Your task to perform on an android device: turn on the 24-hour format for clock Image 0: 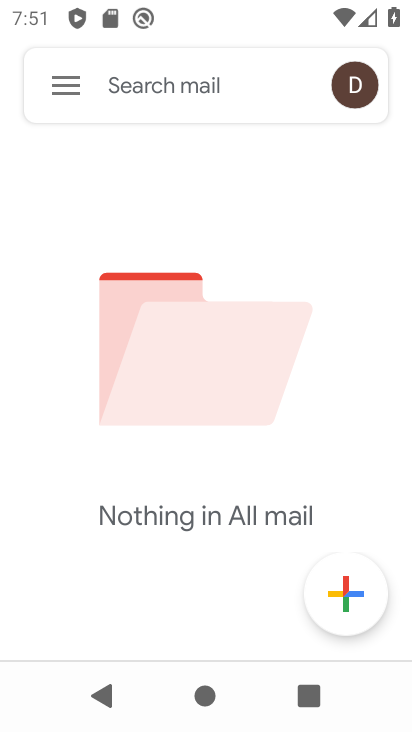
Step 0: press home button
Your task to perform on an android device: turn on the 24-hour format for clock Image 1: 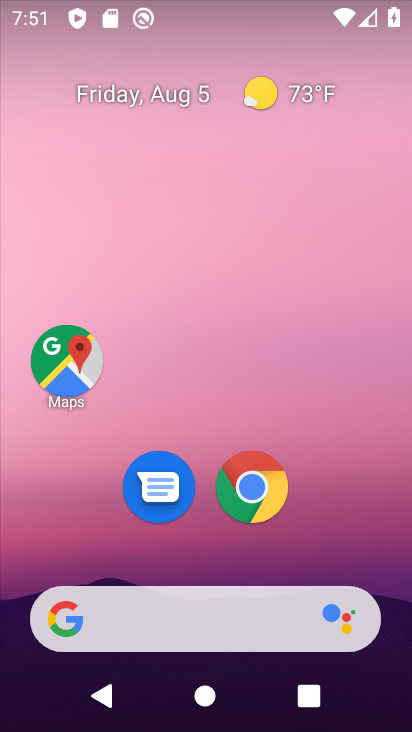
Step 1: drag from (246, 633) to (378, 139)
Your task to perform on an android device: turn on the 24-hour format for clock Image 2: 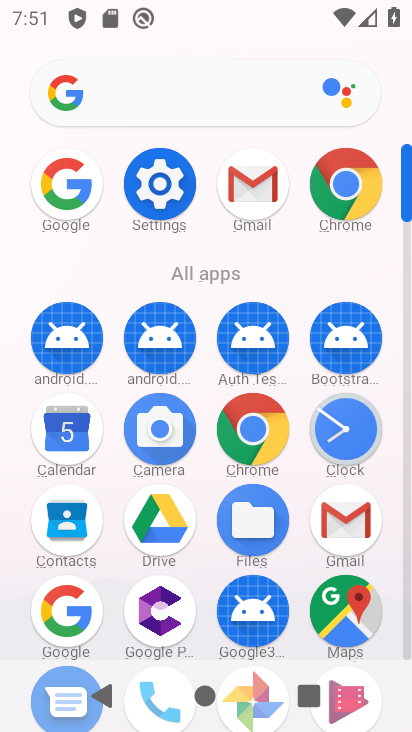
Step 2: click (344, 423)
Your task to perform on an android device: turn on the 24-hour format for clock Image 3: 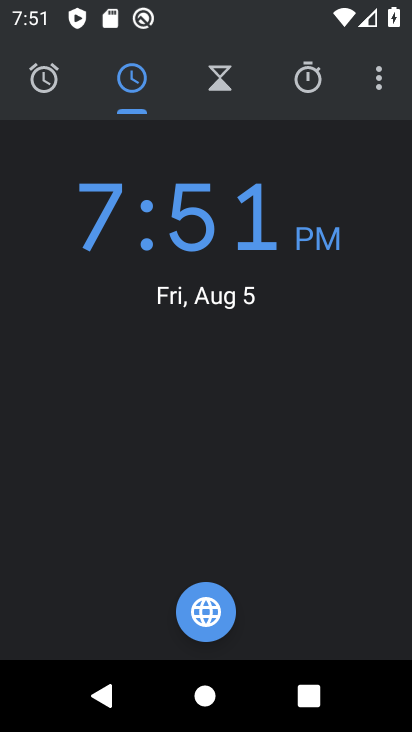
Step 3: click (379, 78)
Your task to perform on an android device: turn on the 24-hour format for clock Image 4: 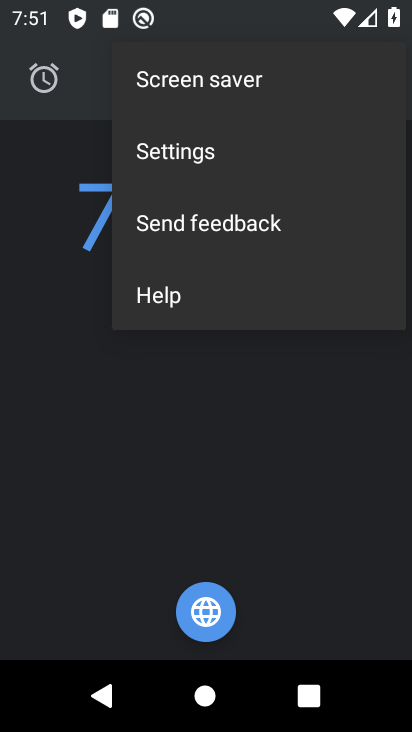
Step 4: click (229, 141)
Your task to perform on an android device: turn on the 24-hour format for clock Image 5: 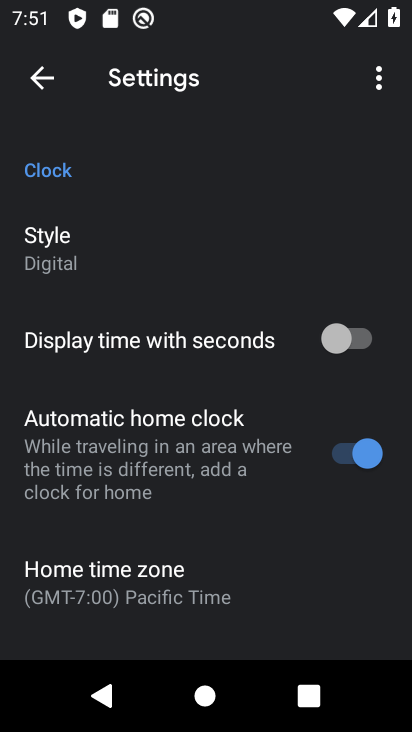
Step 5: drag from (261, 556) to (349, 82)
Your task to perform on an android device: turn on the 24-hour format for clock Image 6: 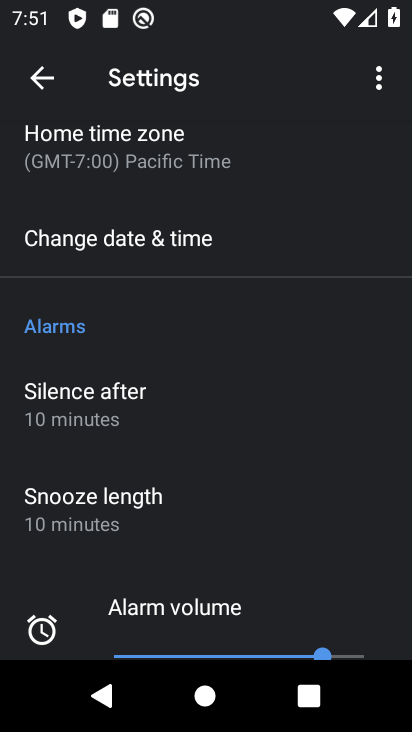
Step 6: click (165, 242)
Your task to perform on an android device: turn on the 24-hour format for clock Image 7: 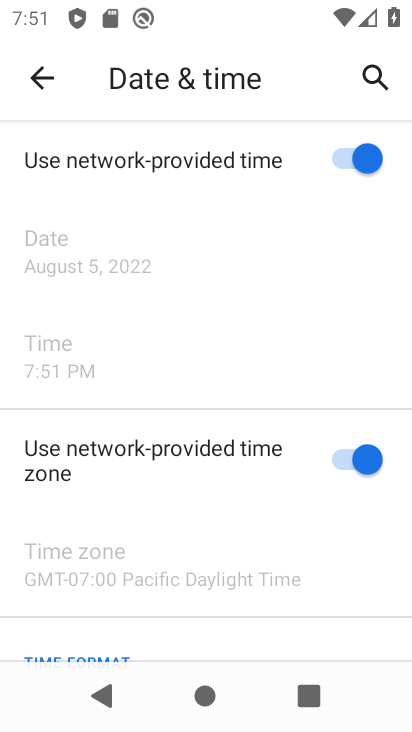
Step 7: drag from (258, 545) to (380, 124)
Your task to perform on an android device: turn on the 24-hour format for clock Image 8: 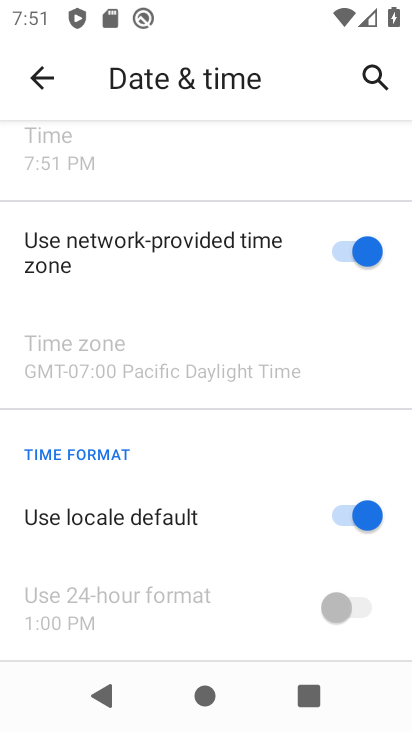
Step 8: click (358, 604)
Your task to perform on an android device: turn on the 24-hour format for clock Image 9: 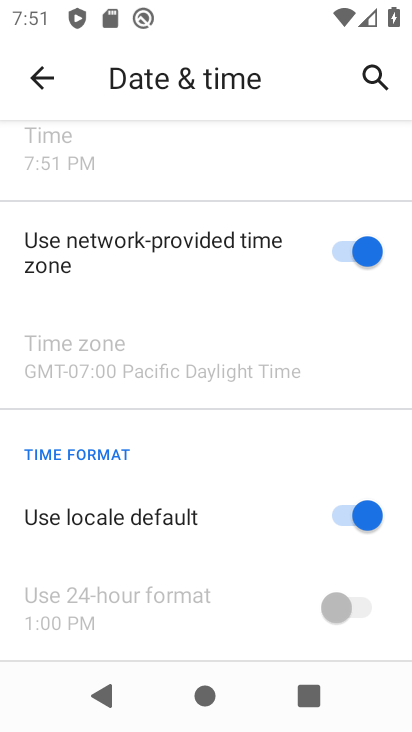
Step 9: click (345, 517)
Your task to perform on an android device: turn on the 24-hour format for clock Image 10: 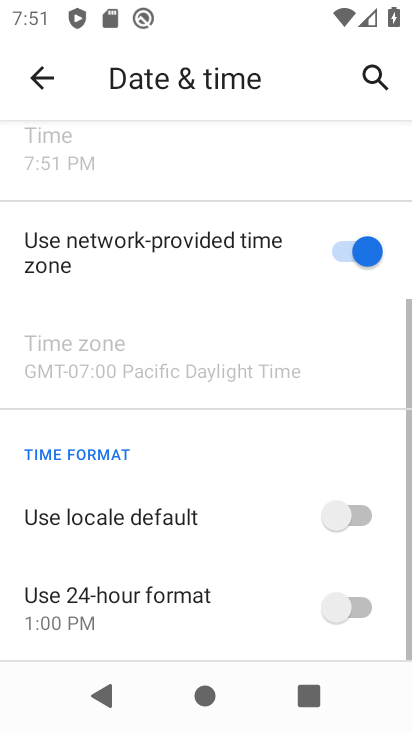
Step 10: click (356, 599)
Your task to perform on an android device: turn on the 24-hour format for clock Image 11: 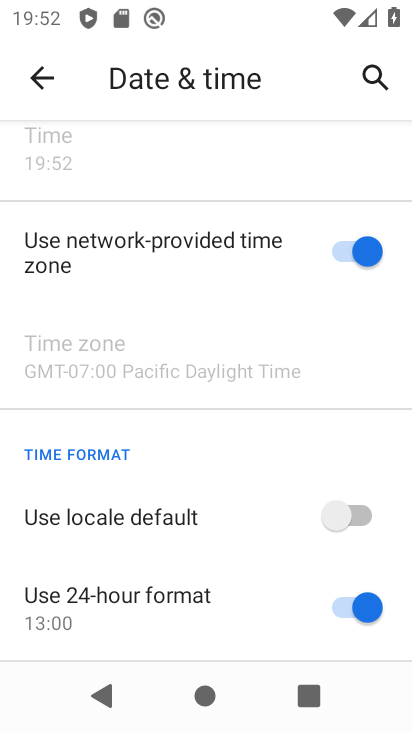
Step 11: task complete